Your task to perform on an android device: open app "Yahoo Mail" Image 0: 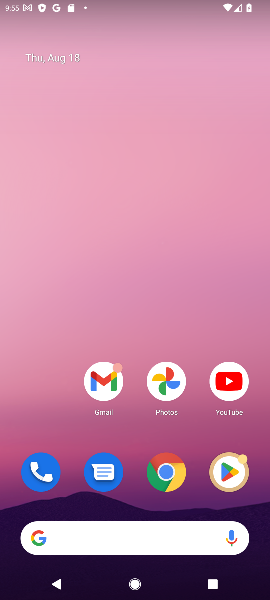
Step 0: click (238, 486)
Your task to perform on an android device: open app "Yahoo Mail" Image 1: 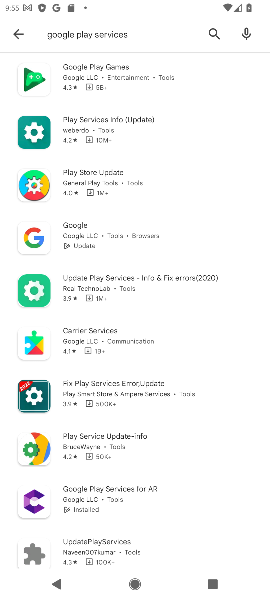
Step 1: click (208, 36)
Your task to perform on an android device: open app "Yahoo Mail" Image 2: 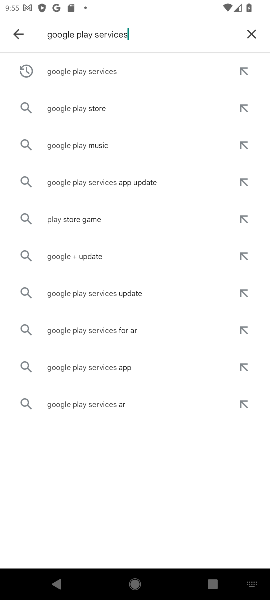
Step 2: click (255, 35)
Your task to perform on an android device: open app "Yahoo Mail" Image 3: 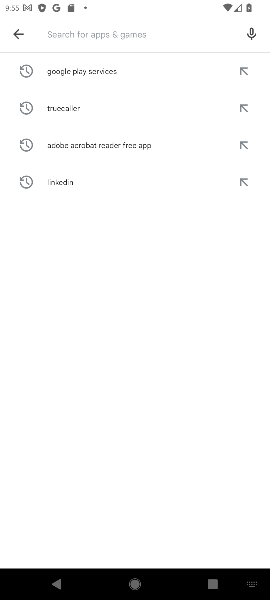
Step 3: type "yahoo mail"
Your task to perform on an android device: open app "Yahoo Mail" Image 4: 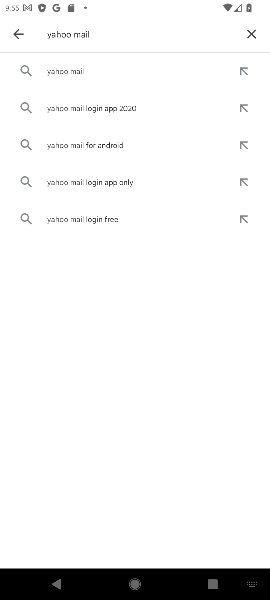
Step 4: click (59, 66)
Your task to perform on an android device: open app "Yahoo Mail" Image 5: 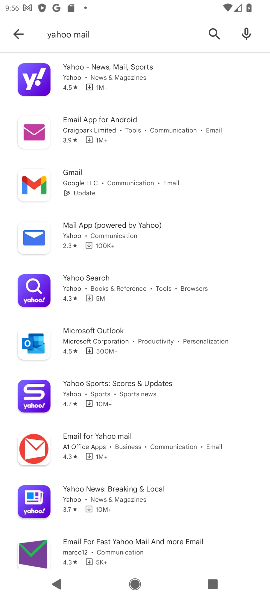
Step 5: click (140, 77)
Your task to perform on an android device: open app "Yahoo Mail" Image 6: 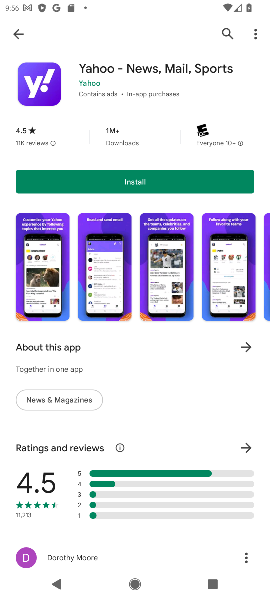
Step 6: task complete